Your task to perform on an android device: Open wifi settings Image 0: 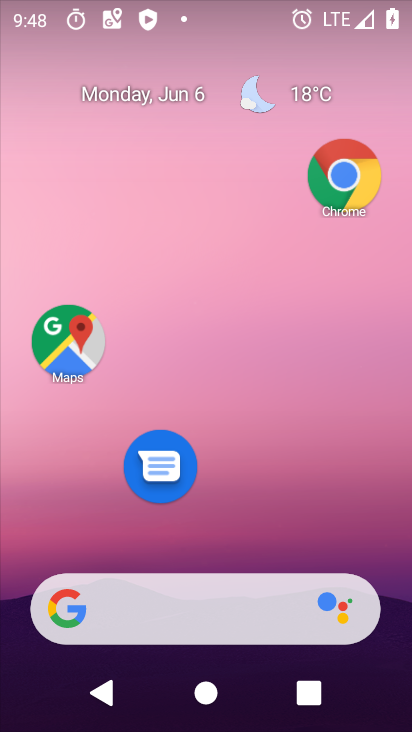
Step 0: drag from (214, 530) to (227, 82)
Your task to perform on an android device: Open wifi settings Image 1: 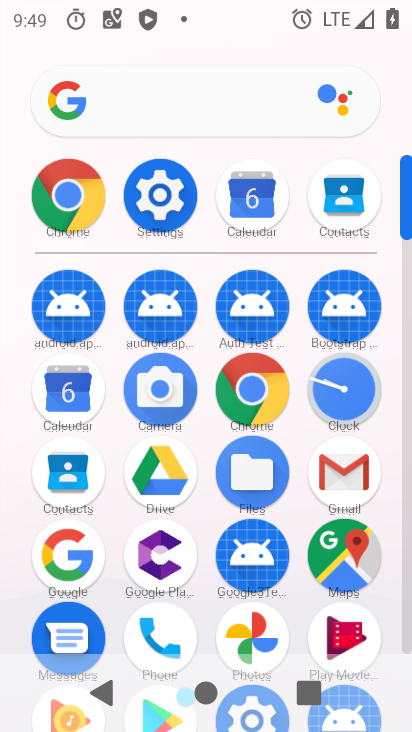
Step 1: click (137, 190)
Your task to perform on an android device: Open wifi settings Image 2: 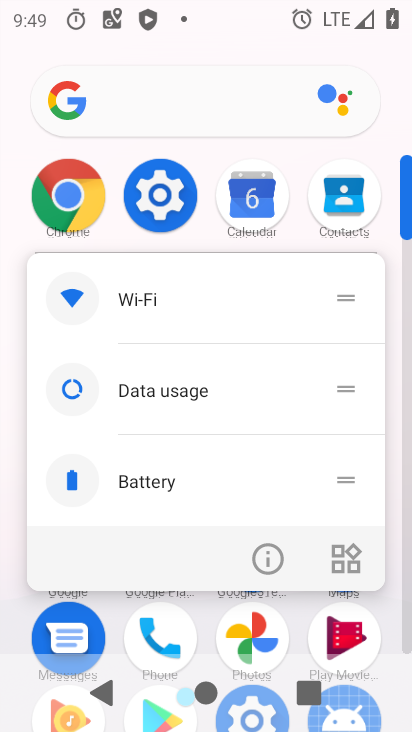
Step 2: click (206, 314)
Your task to perform on an android device: Open wifi settings Image 3: 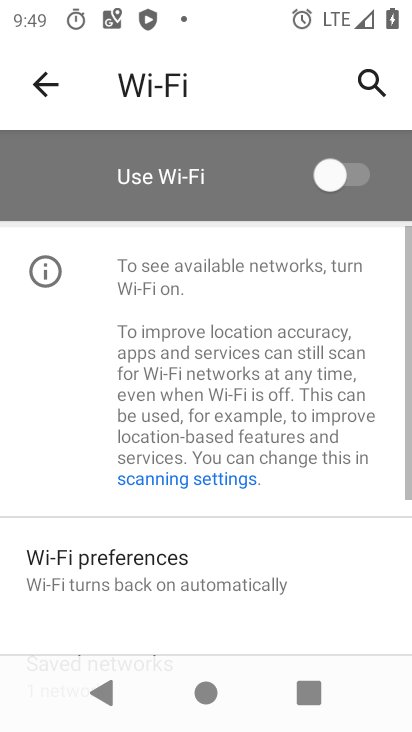
Step 3: task complete